Your task to perform on an android device: What is the speed of a rocket? Image 0: 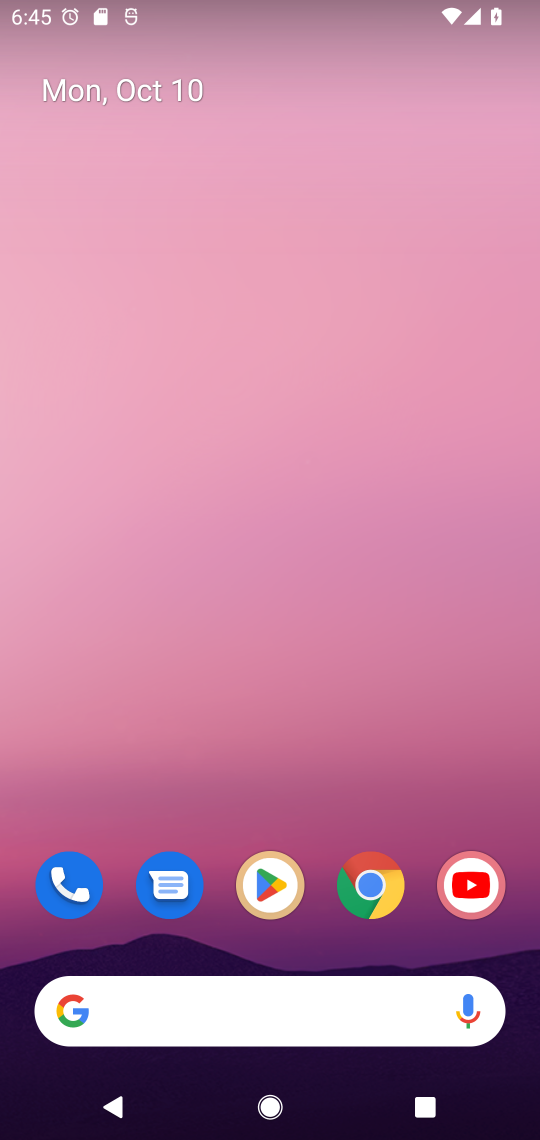
Step 0: click (374, 891)
Your task to perform on an android device: What is the speed of a rocket? Image 1: 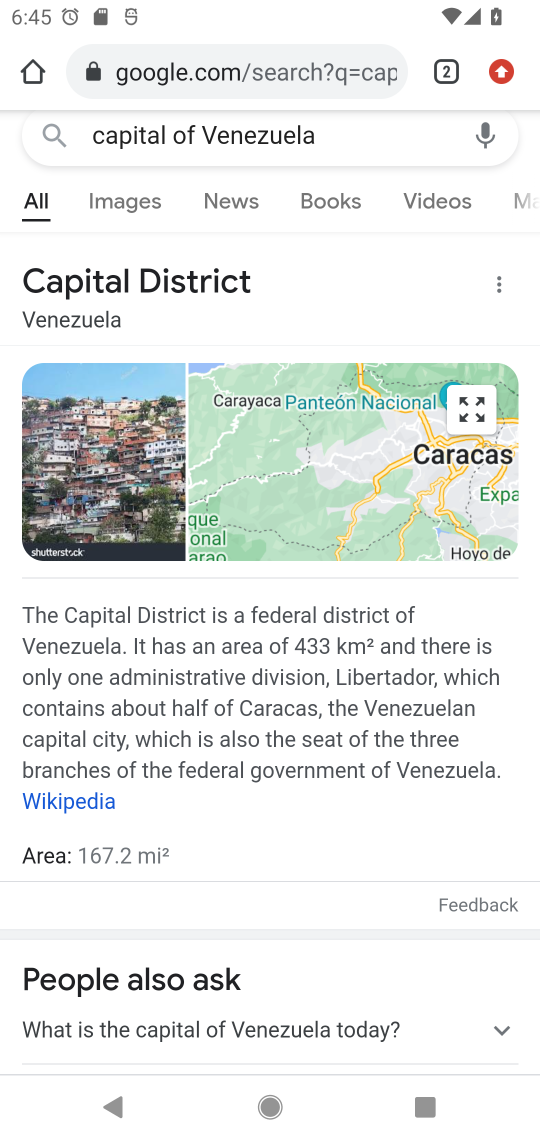
Step 1: click (258, 68)
Your task to perform on an android device: What is the speed of a rocket? Image 2: 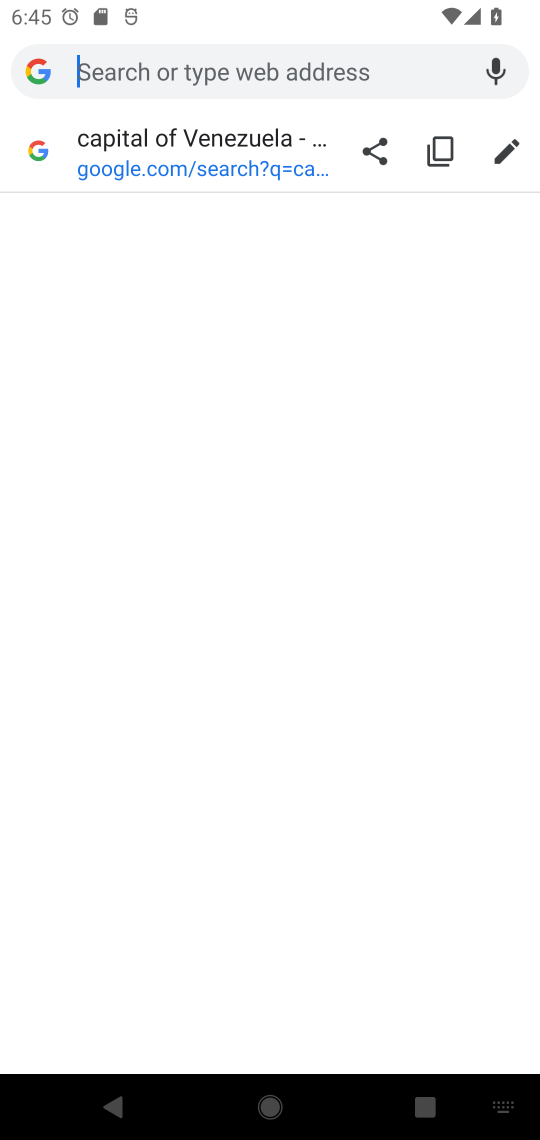
Step 2: type "speed of a rocket"
Your task to perform on an android device: What is the speed of a rocket? Image 3: 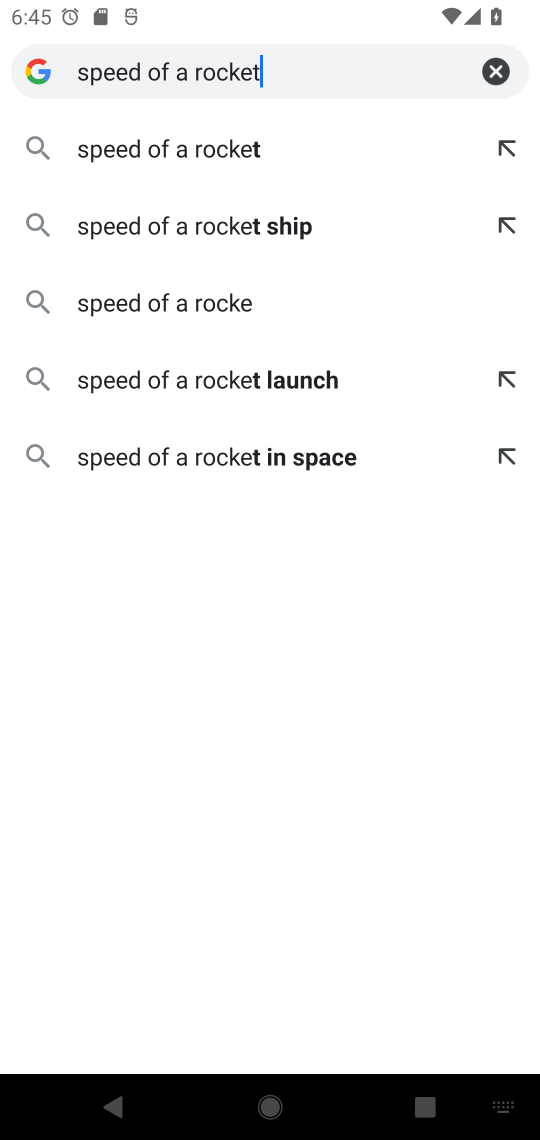
Step 3: type ""
Your task to perform on an android device: What is the speed of a rocket? Image 4: 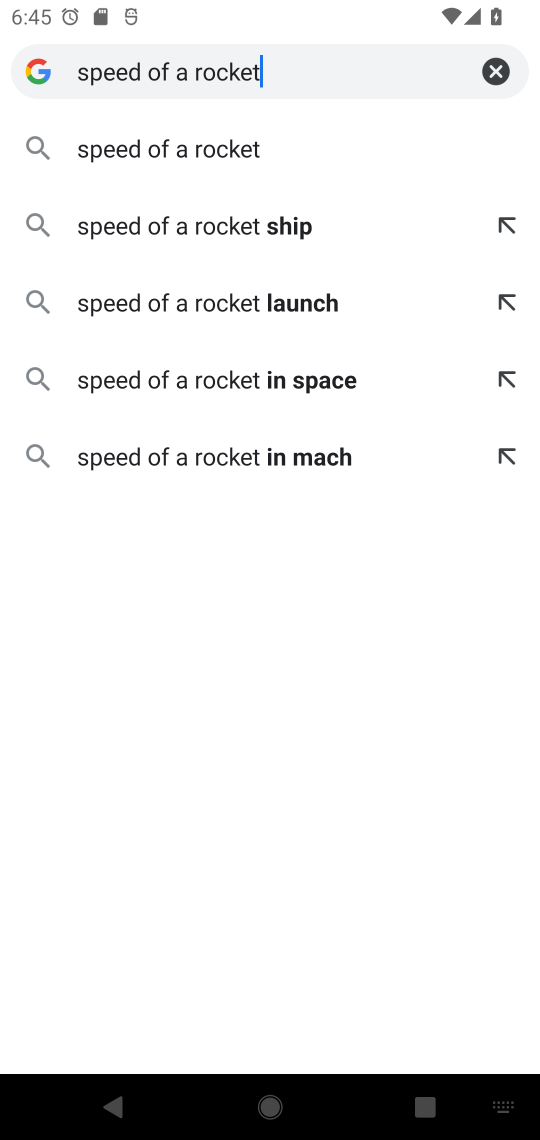
Step 4: click (227, 158)
Your task to perform on an android device: What is the speed of a rocket? Image 5: 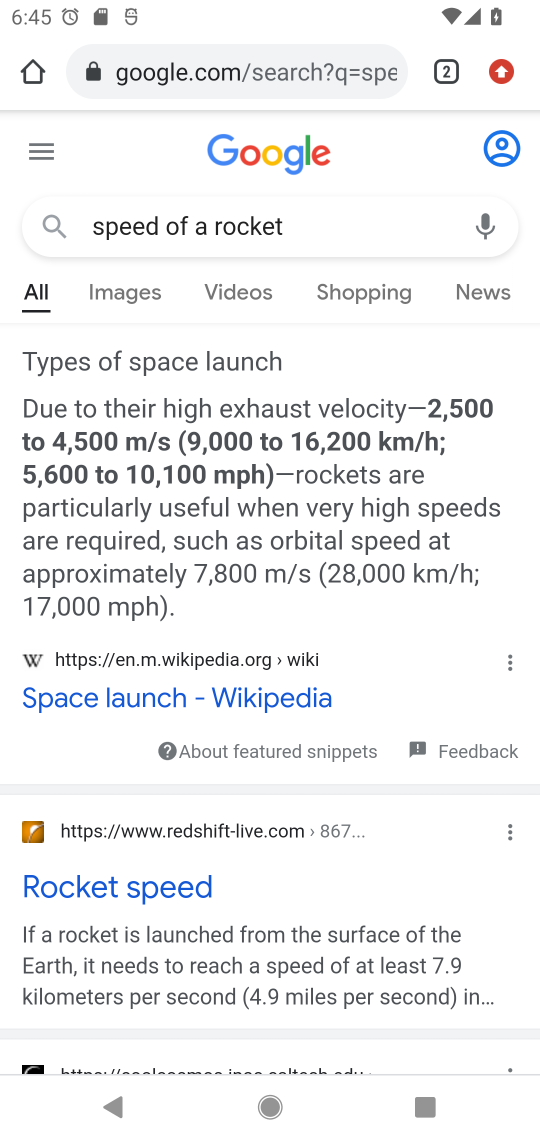
Step 5: task complete